Your task to perform on an android device: turn on airplane mode Image 0: 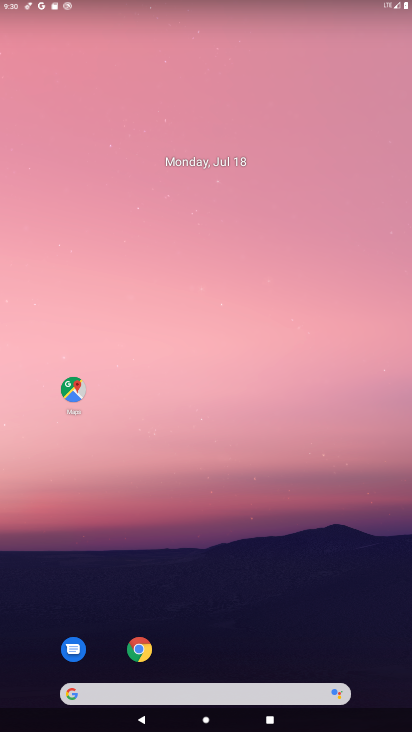
Step 0: drag from (192, 671) to (268, 278)
Your task to perform on an android device: turn on airplane mode Image 1: 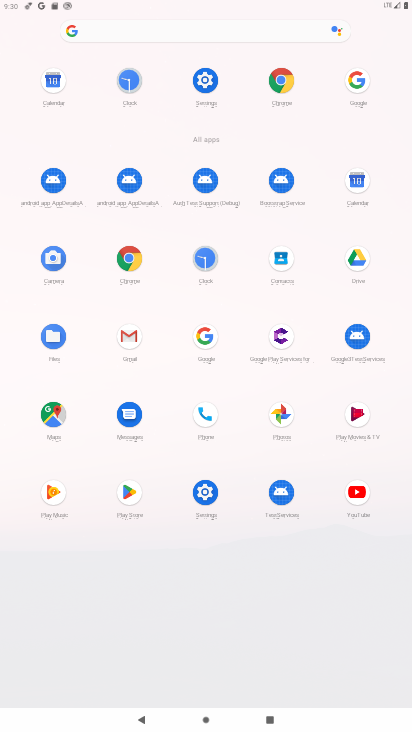
Step 1: click (200, 82)
Your task to perform on an android device: turn on airplane mode Image 2: 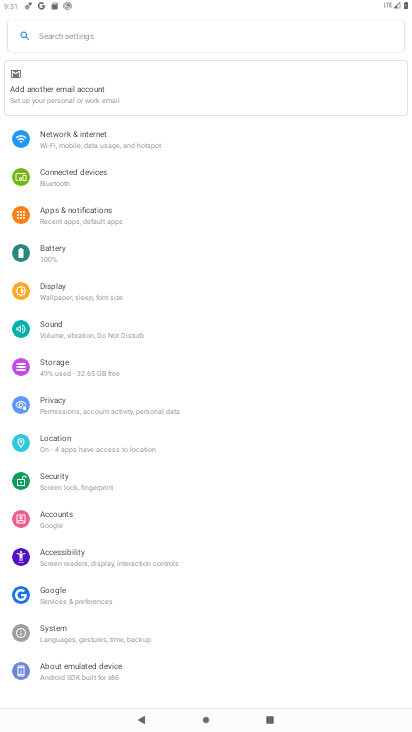
Step 2: click (90, 141)
Your task to perform on an android device: turn on airplane mode Image 3: 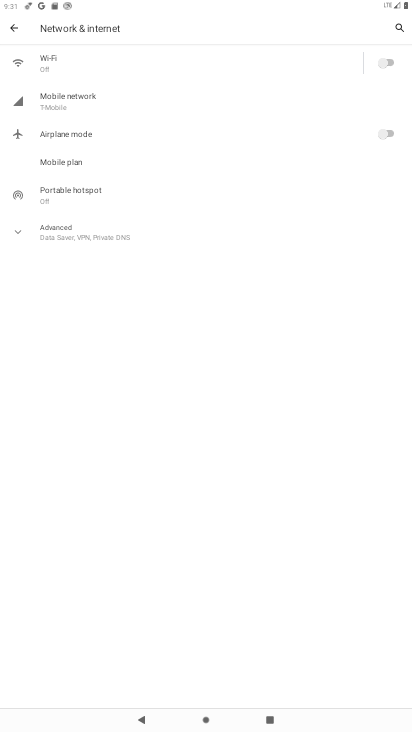
Step 3: click (387, 131)
Your task to perform on an android device: turn on airplane mode Image 4: 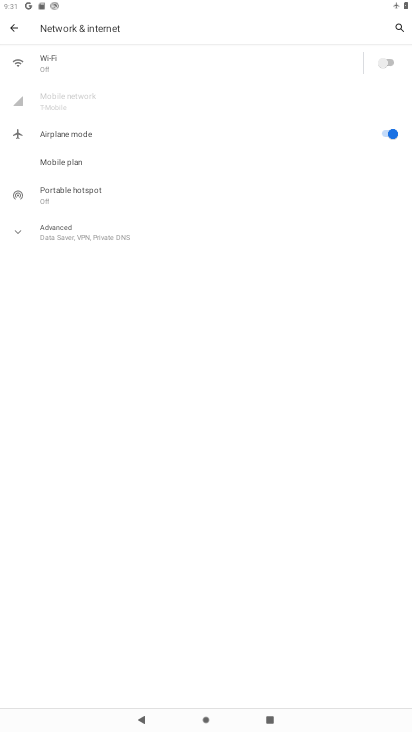
Step 4: task complete